Your task to perform on an android device: turn vacation reply on in the gmail app Image 0: 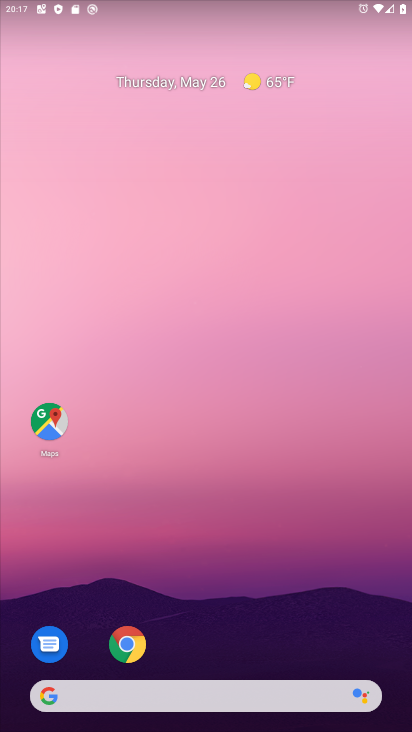
Step 0: drag from (152, 647) to (217, 149)
Your task to perform on an android device: turn vacation reply on in the gmail app Image 1: 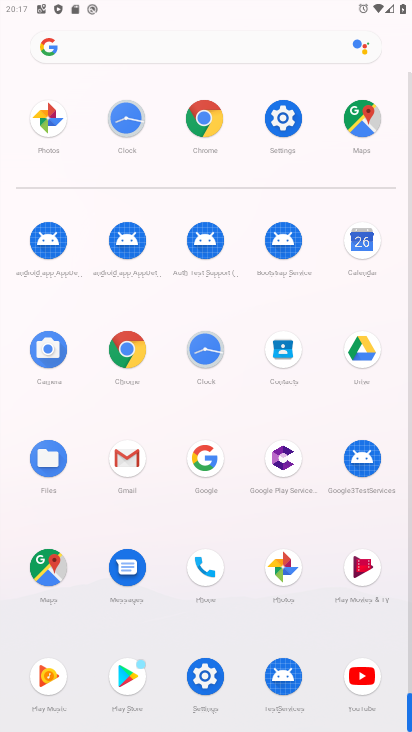
Step 1: click (124, 469)
Your task to perform on an android device: turn vacation reply on in the gmail app Image 2: 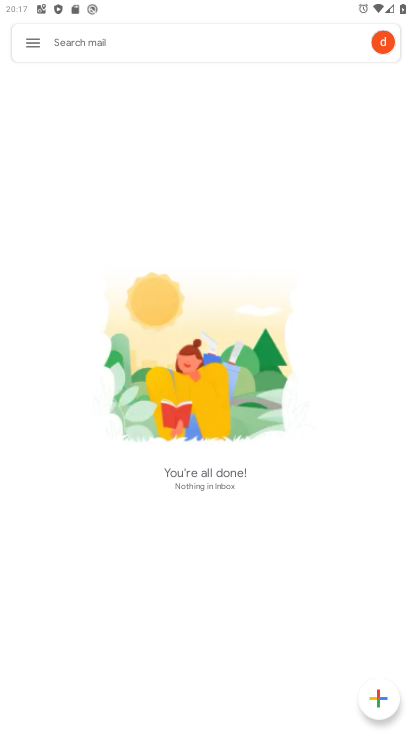
Step 2: click (34, 55)
Your task to perform on an android device: turn vacation reply on in the gmail app Image 3: 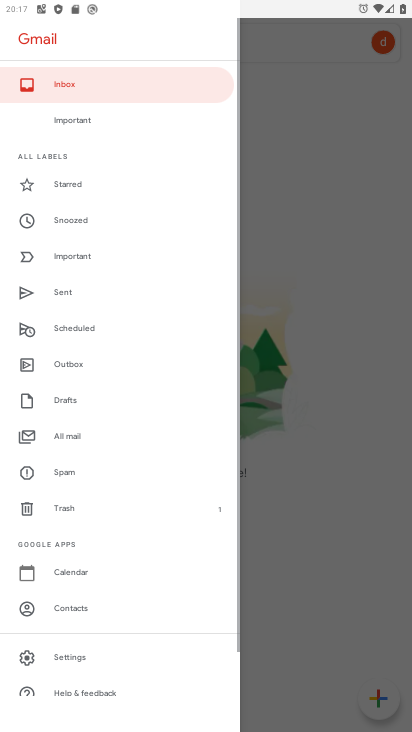
Step 3: drag from (133, 614) to (156, 203)
Your task to perform on an android device: turn vacation reply on in the gmail app Image 4: 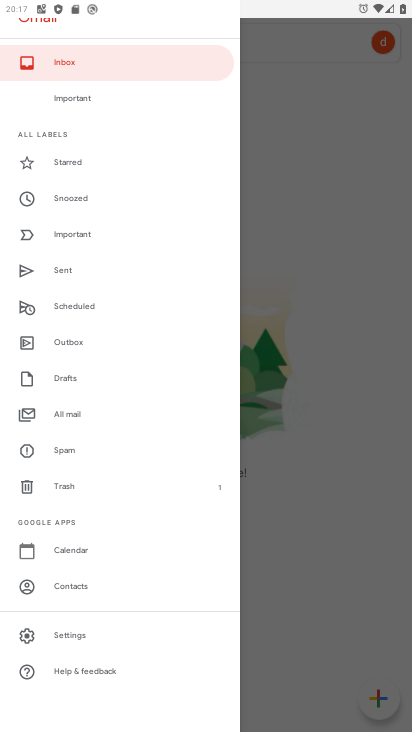
Step 4: click (66, 635)
Your task to perform on an android device: turn vacation reply on in the gmail app Image 5: 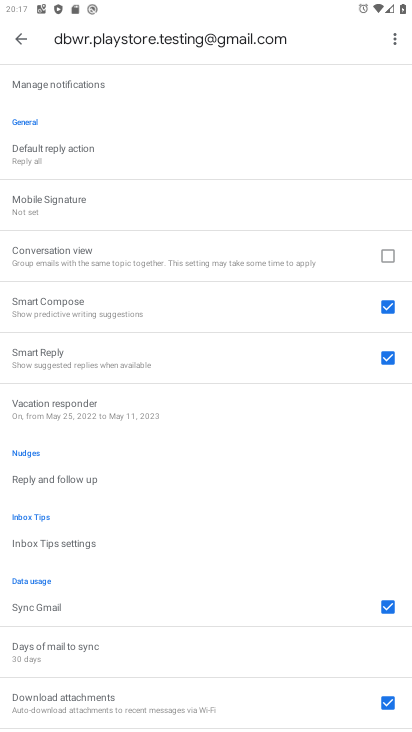
Step 5: click (104, 396)
Your task to perform on an android device: turn vacation reply on in the gmail app Image 6: 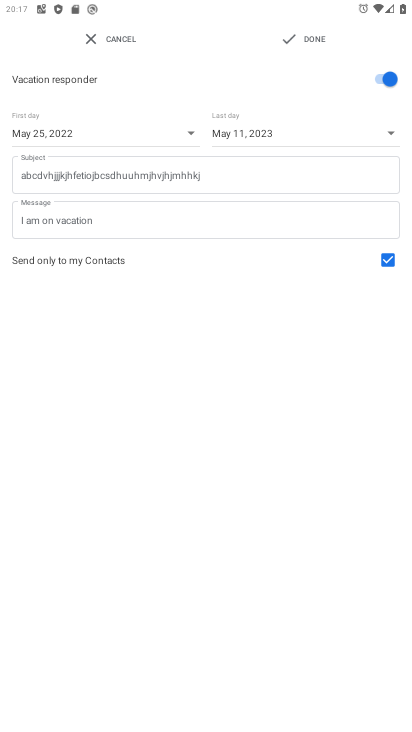
Step 6: click (296, 31)
Your task to perform on an android device: turn vacation reply on in the gmail app Image 7: 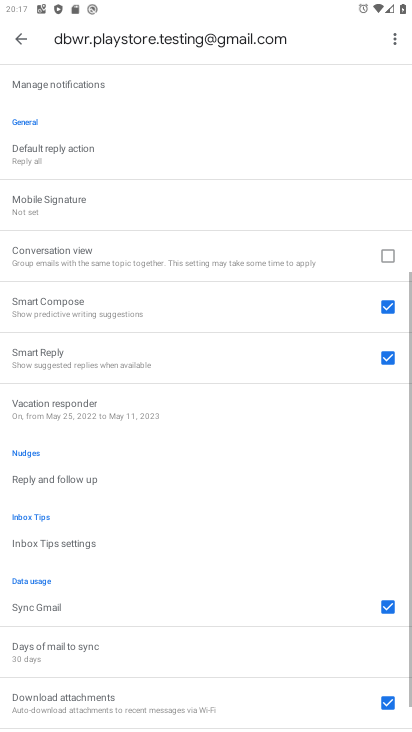
Step 7: task complete